Your task to perform on an android device: open app "Pinterest" Image 0: 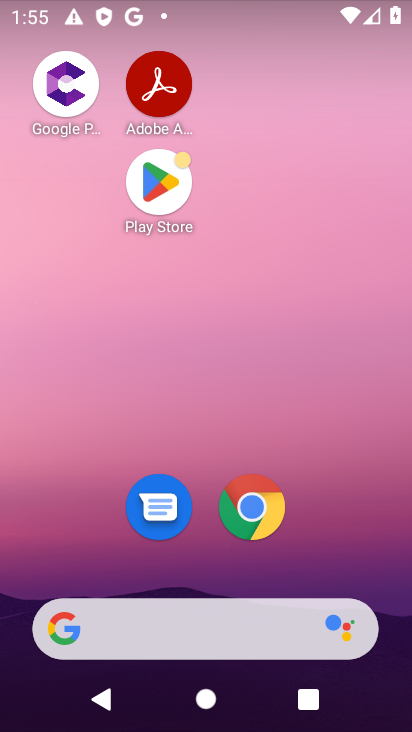
Step 0: click (238, 625)
Your task to perform on an android device: open app "Pinterest" Image 1: 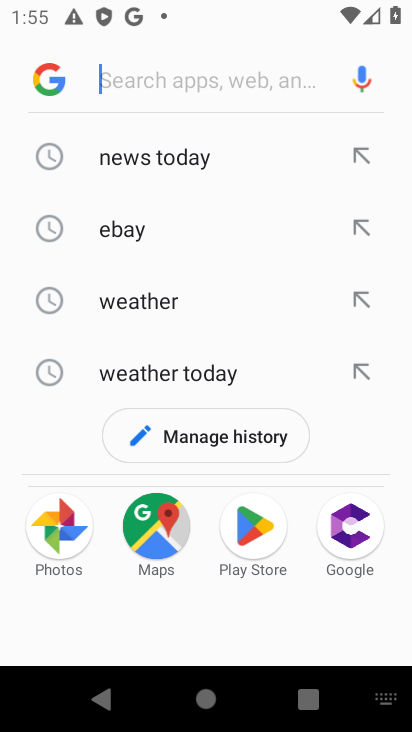
Step 1: press home button
Your task to perform on an android device: open app "Pinterest" Image 2: 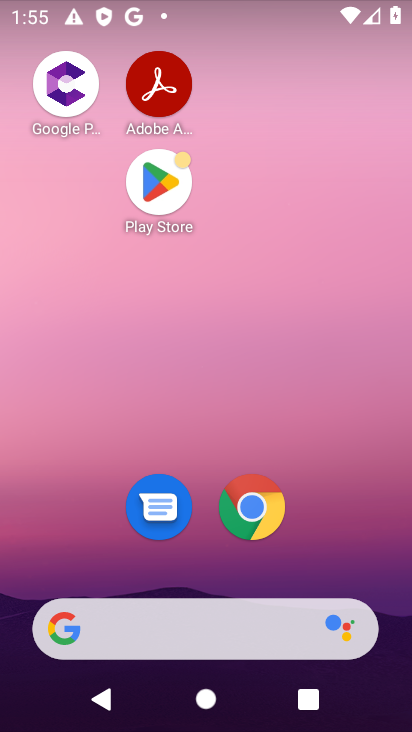
Step 2: click (167, 191)
Your task to perform on an android device: open app "Pinterest" Image 3: 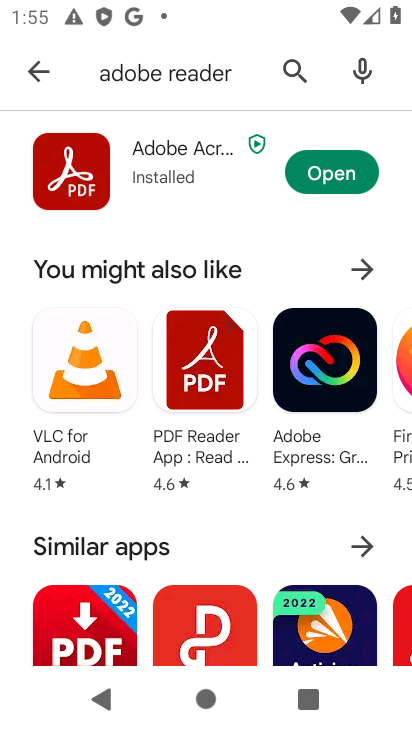
Step 3: click (296, 88)
Your task to perform on an android device: open app "Pinterest" Image 4: 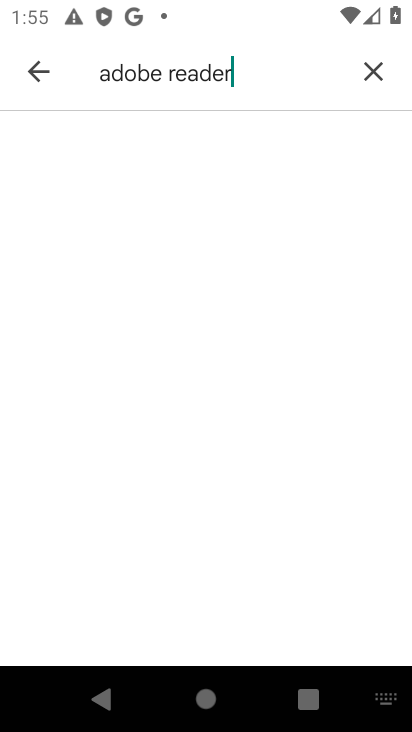
Step 4: click (296, 88)
Your task to perform on an android device: open app "Pinterest" Image 5: 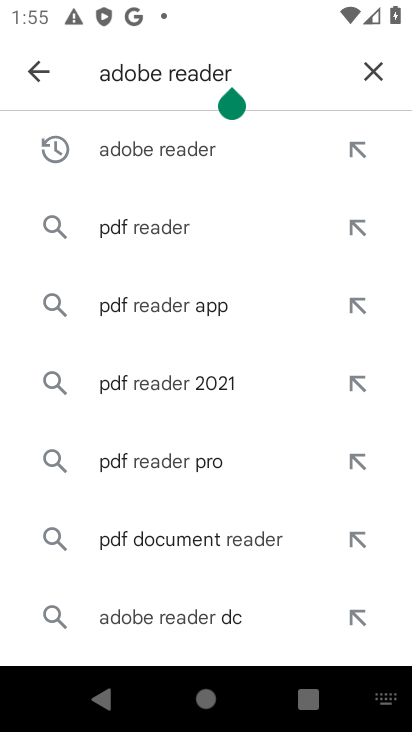
Step 5: click (364, 76)
Your task to perform on an android device: open app "Pinterest" Image 6: 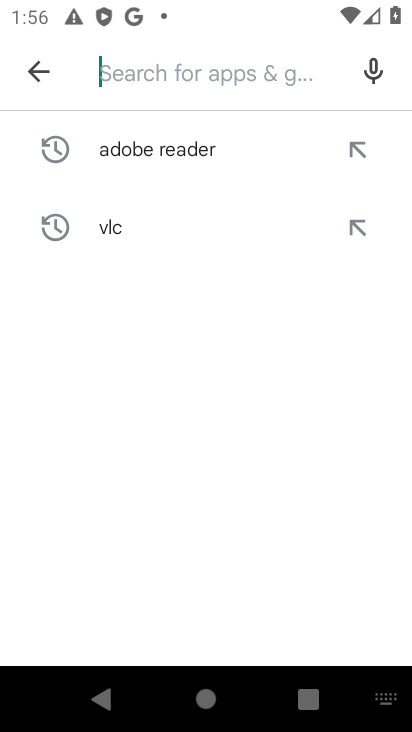
Step 6: type "pinterest"
Your task to perform on an android device: open app "Pinterest" Image 7: 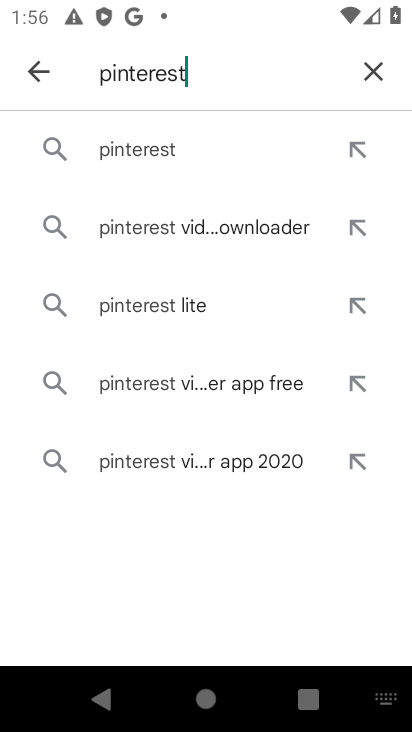
Step 7: click (215, 141)
Your task to perform on an android device: open app "Pinterest" Image 8: 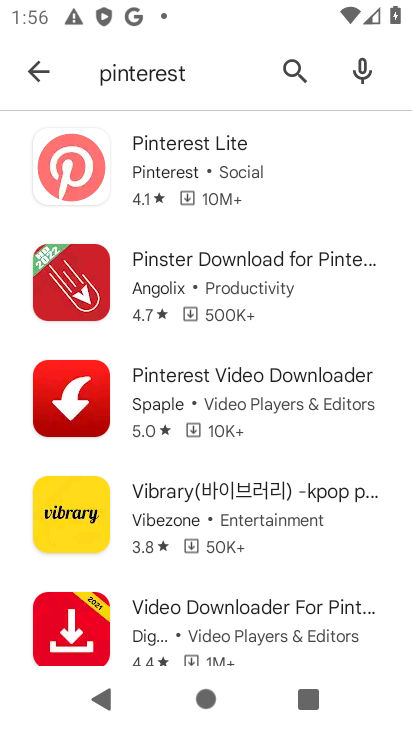
Step 8: click (193, 149)
Your task to perform on an android device: open app "Pinterest" Image 9: 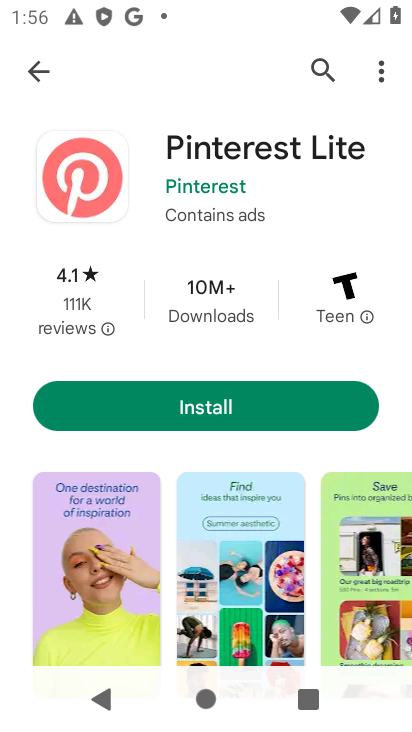
Step 9: click (214, 388)
Your task to perform on an android device: open app "Pinterest" Image 10: 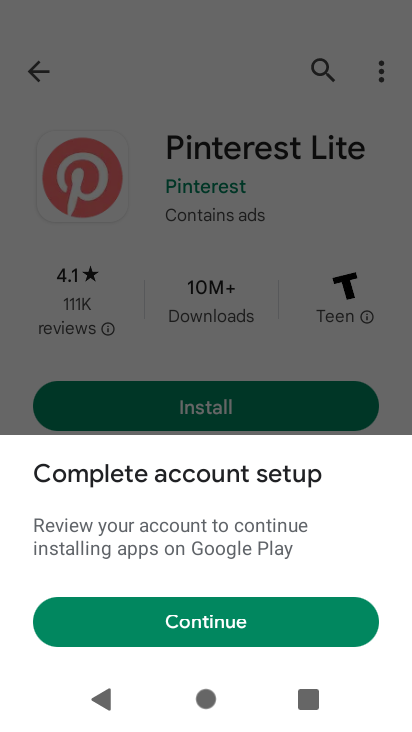
Step 10: click (176, 607)
Your task to perform on an android device: open app "Pinterest" Image 11: 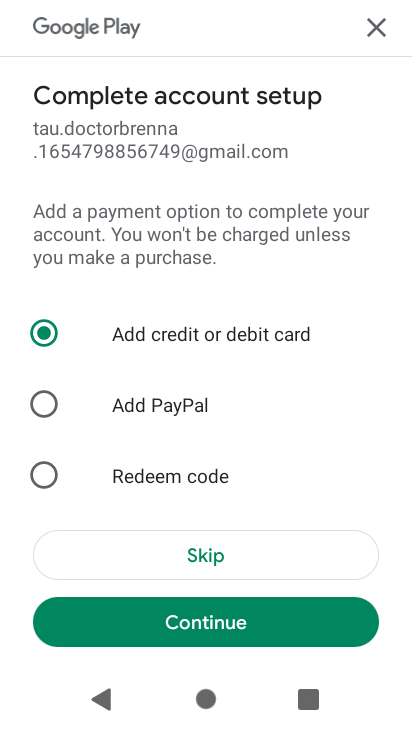
Step 11: click (192, 561)
Your task to perform on an android device: open app "Pinterest" Image 12: 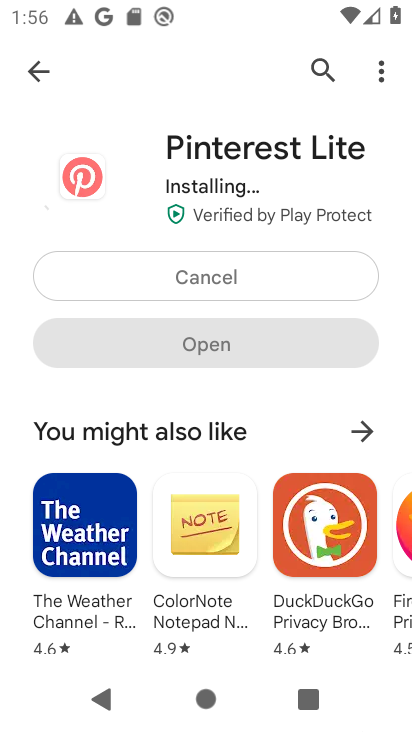
Step 12: task complete